Your task to perform on an android device: What time is it in Los Angeles? Image 0: 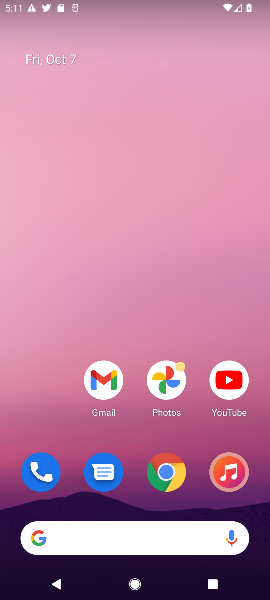
Step 0: click (171, 484)
Your task to perform on an android device: What time is it in Los Angeles? Image 1: 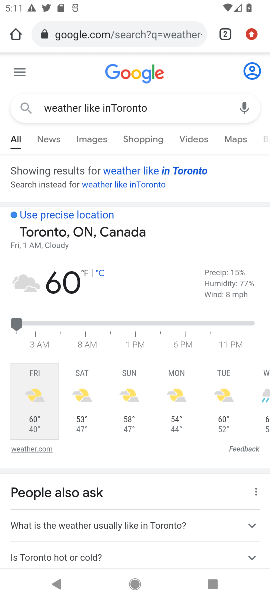
Step 1: click (172, 108)
Your task to perform on an android device: What time is it in Los Angeles? Image 2: 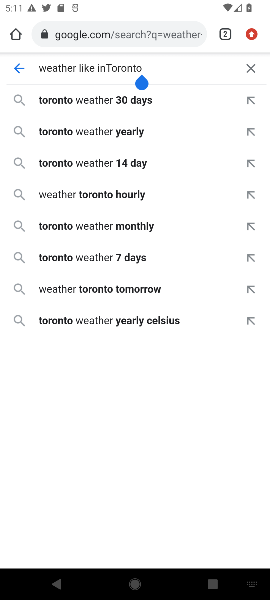
Step 2: click (249, 68)
Your task to perform on an android device: What time is it in Los Angeles? Image 3: 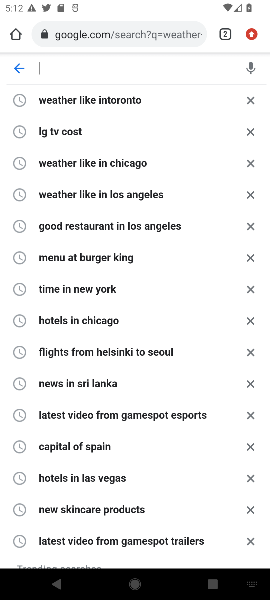
Step 3: type "time in Los Angeles"
Your task to perform on an android device: What time is it in Los Angeles? Image 4: 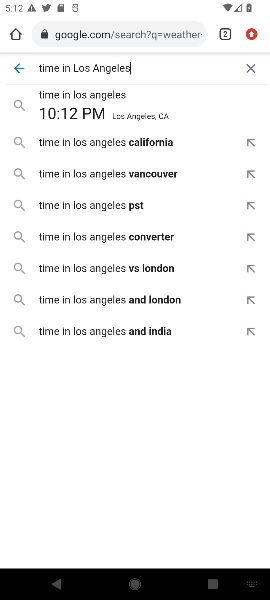
Step 4: click (85, 112)
Your task to perform on an android device: What time is it in Los Angeles? Image 5: 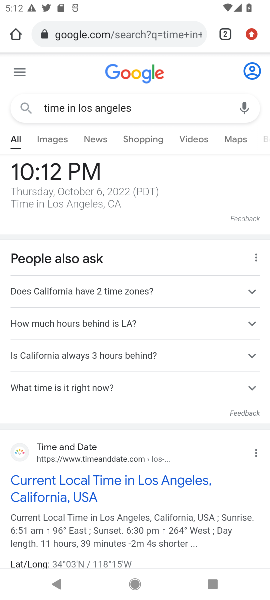
Step 5: task complete